Your task to perform on an android device: set the timer Image 0: 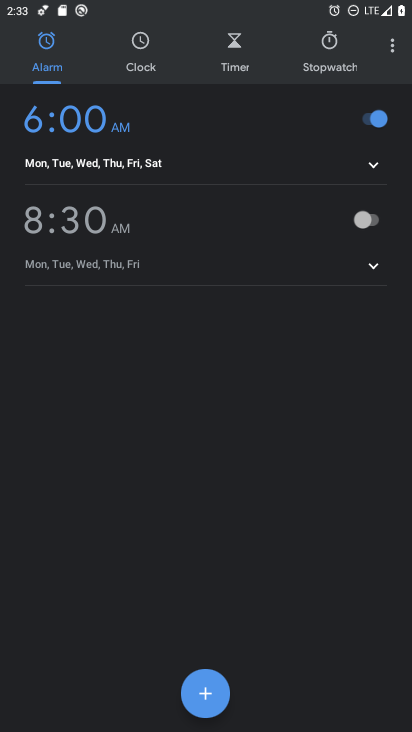
Step 0: click (237, 44)
Your task to perform on an android device: set the timer Image 1: 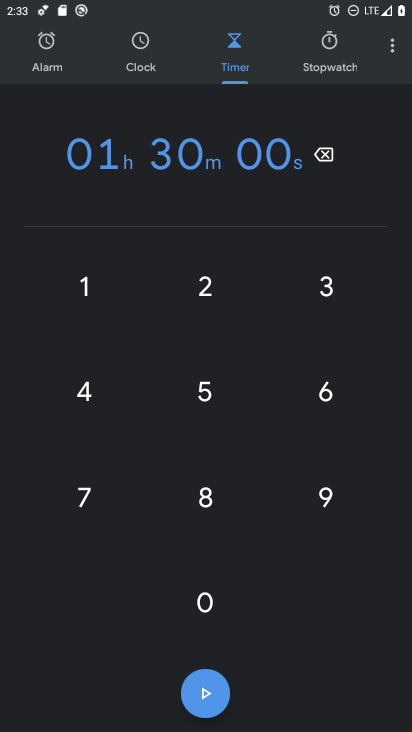
Step 1: task complete